Your task to perform on an android device: clear all cookies in the chrome app Image 0: 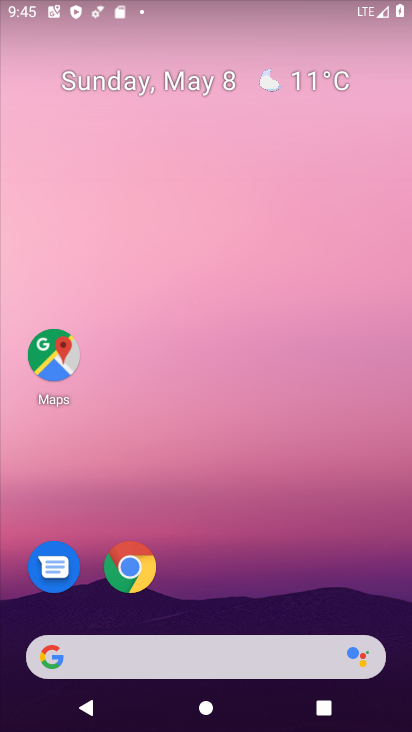
Step 0: click (131, 564)
Your task to perform on an android device: clear all cookies in the chrome app Image 1: 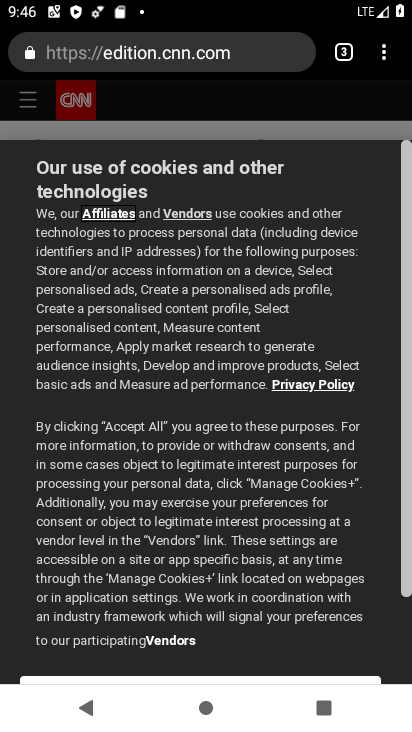
Step 1: drag from (382, 47) to (204, 610)
Your task to perform on an android device: clear all cookies in the chrome app Image 2: 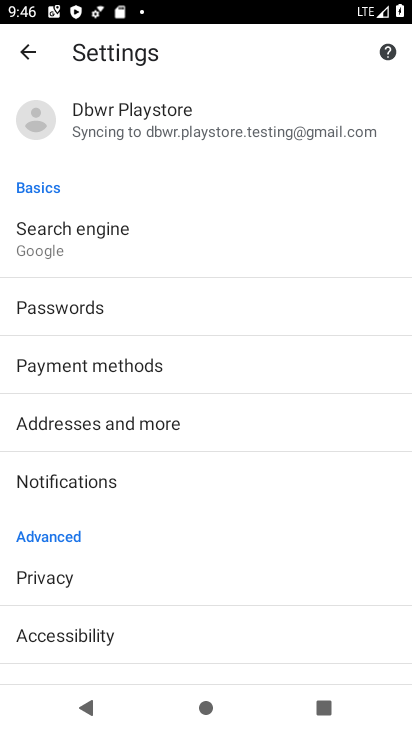
Step 2: drag from (132, 621) to (242, 158)
Your task to perform on an android device: clear all cookies in the chrome app Image 3: 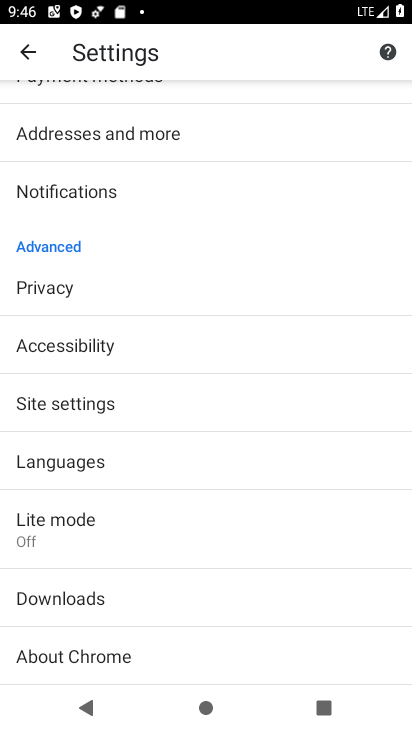
Step 3: drag from (170, 213) to (169, 651)
Your task to perform on an android device: clear all cookies in the chrome app Image 4: 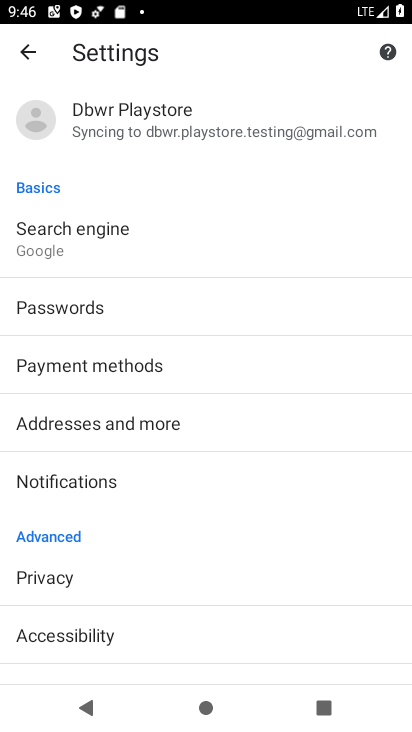
Step 4: click (21, 32)
Your task to perform on an android device: clear all cookies in the chrome app Image 5: 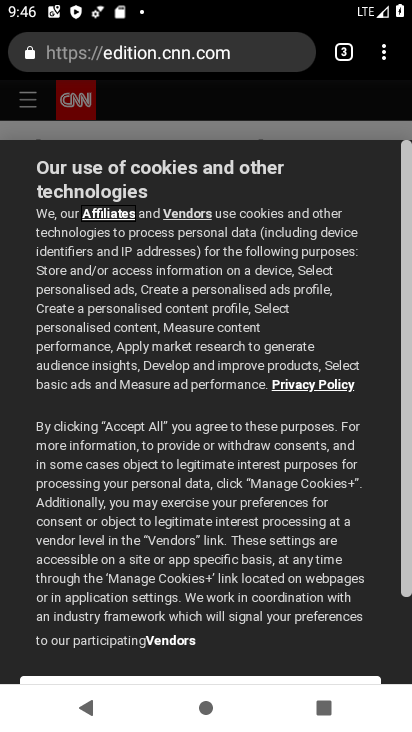
Step 5: click (395, 45)
Your task to perform on an android device: clear all cookies in the chrome app Image 6: 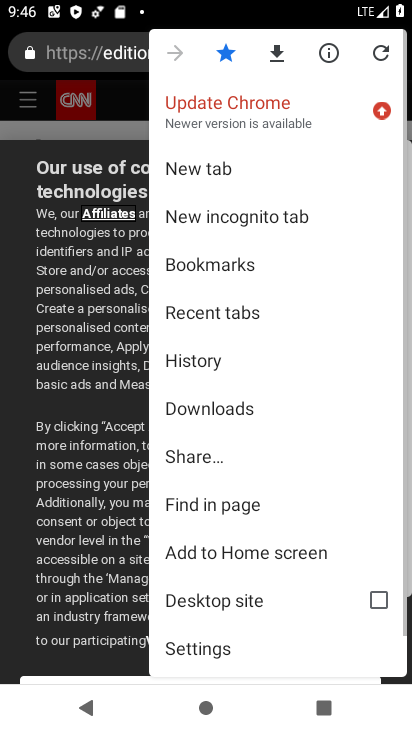
Step 6: click (231, 356)
Your task to perform on an android device: clear all cookies in the chrome app Image 7: 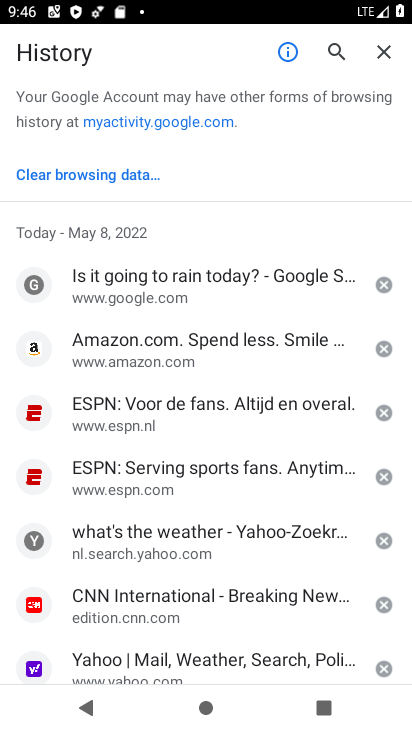
Step 7: click (73, 179)
Your task to perform on an android device: clear all cookies in the chrome app Image 8: 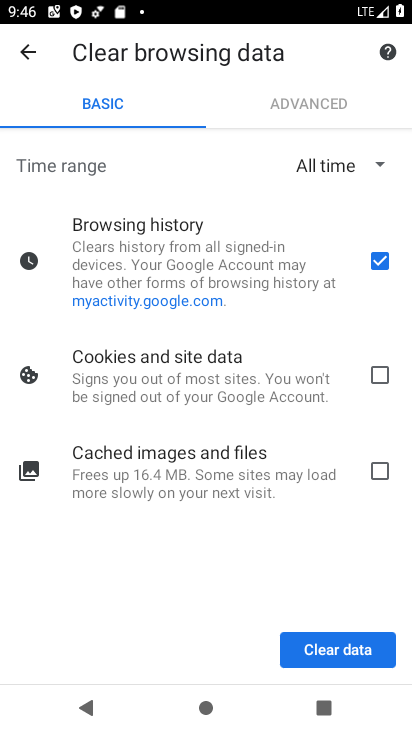
Step 8: click (377, 372)
Your task to perform on an android device: clear all cookies in the chrome app Image 9: 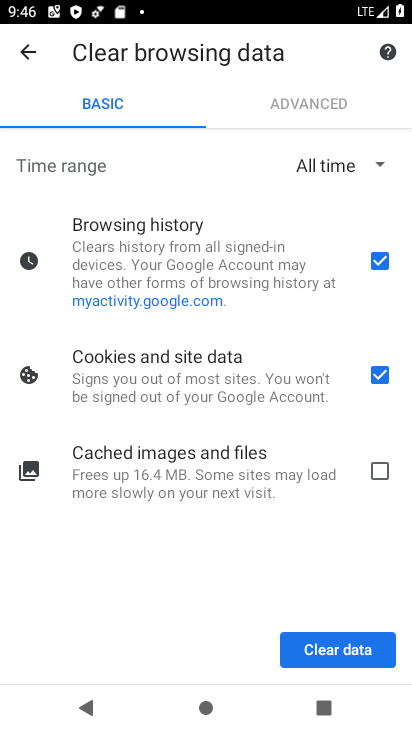
Step 9: click (332, 652)
Your task to perform on an android device: clear all cookies in the chrome app Image 10: 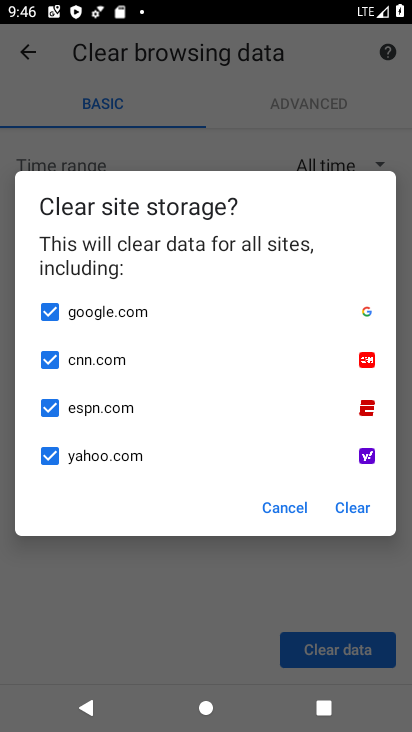
Step 10: click (356, 504)
Your task to perform on an android device: clear all cookies in the chrome app Image 11: 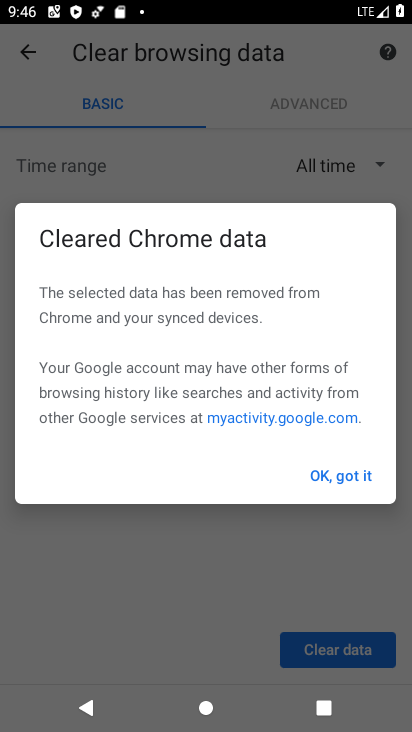
Step 11: task complete